Your task to perform on an android device: What's the weather? Image 0: 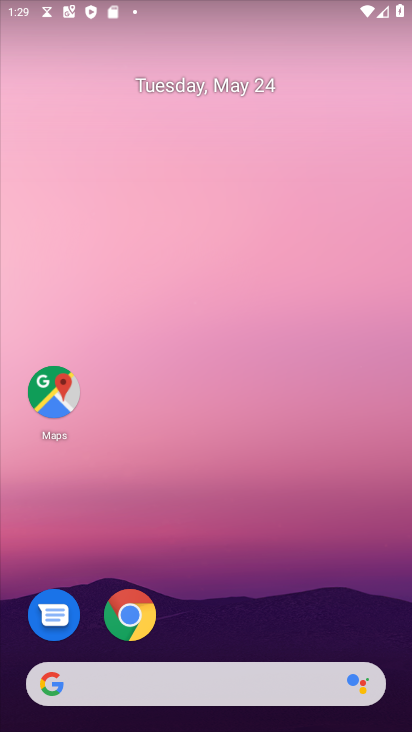
Step 0: press home button
Your task to perform on an android device: What's the weather? Image 1: 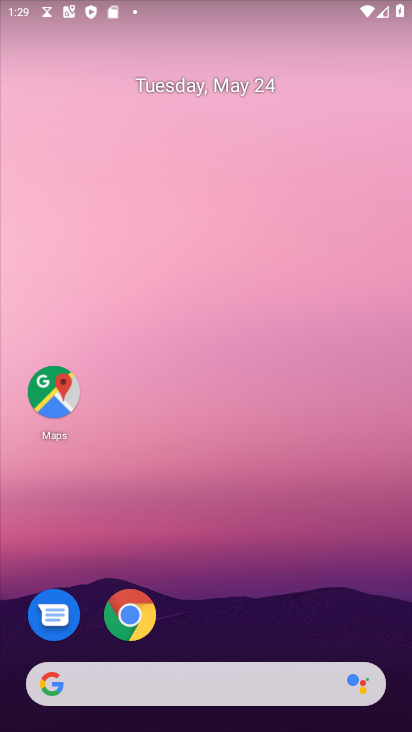
Step 1: drag from (7, 253) to (392, 256)
Your task to perform on an android device: What's the weather? Image 2: 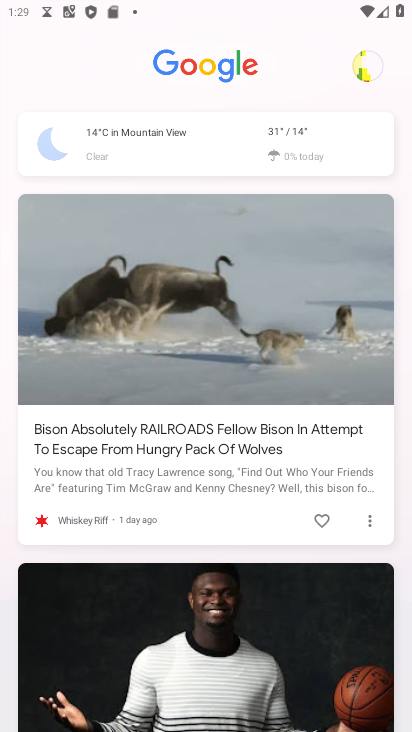
Step 2: click (287, 132)
Your task to perform on an android device: What's the weather? Image 3: 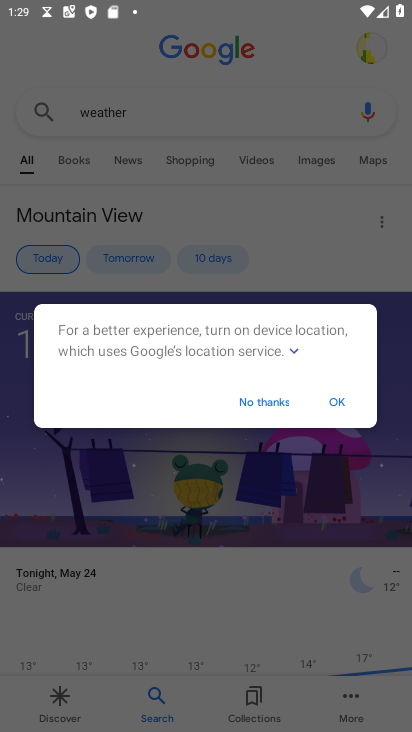
Step 3: click (258, 404)
Your task to perform on an android device: What's the weather? Image 4: 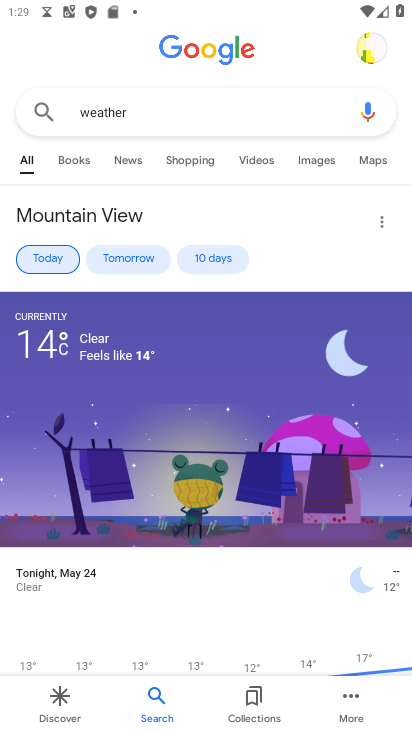
Step 4: task complete